Your task to perform on an android device: Go to Yahoo.com Image 0: 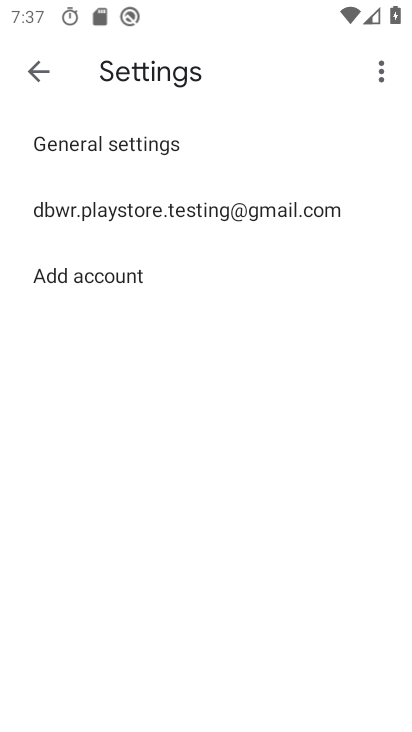
Step 0: press home button
Your task to perform on an android device: Go to Yahoo.com Image 1: 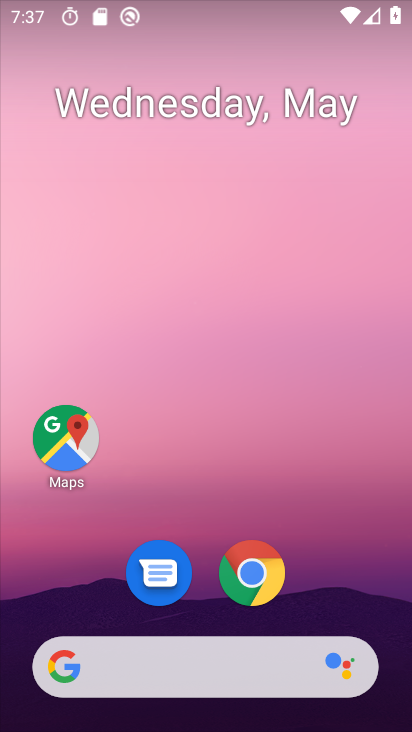
Step 1: click (244, 560)
Your task to perform on an android device: Go to Yahoo.com Image 2: 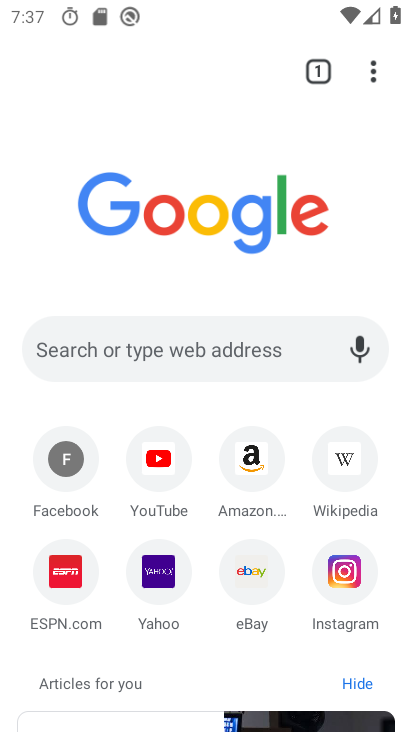
Step 2: click (168, 343)
Your task to perform on an android device: Go to Yahoo.com Image 3: 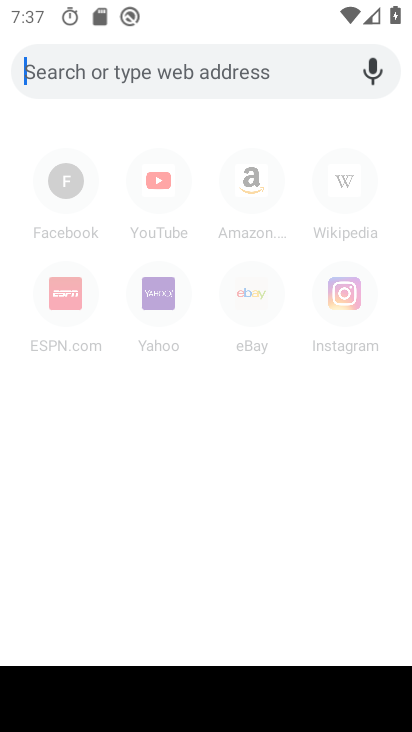
Step 3: type "yahoo.com"
Your task to perform on an android device: Go to Yahoo.com Image 4: 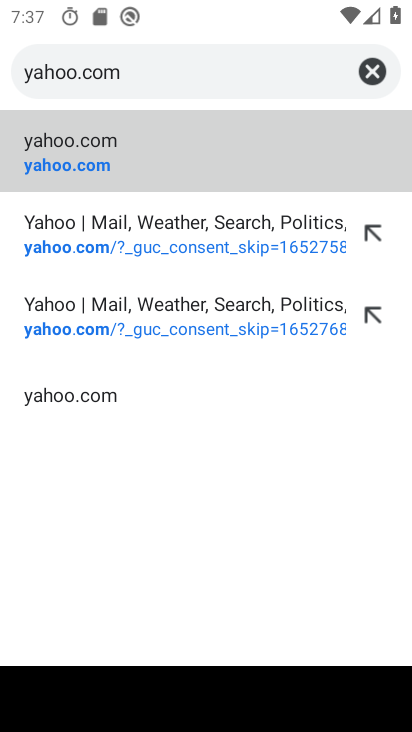
Step 4: click (95, 154)
Your task to perform on an android device: Go to Yahoo.com Image 5: 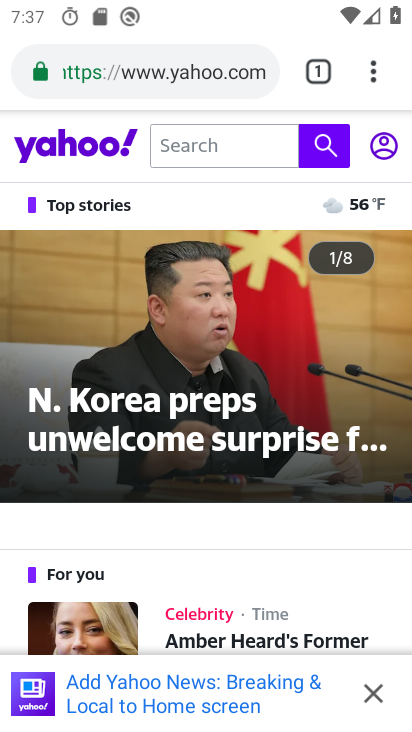
Step 5: task complete